Your task to perform on an android device: Open calendar and show me the first week of next month Image 0: 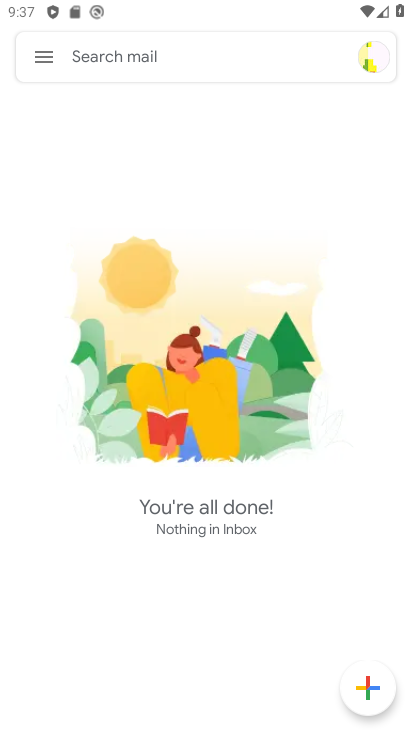
Step 0: press home button
Your task to perform on an android device: Open calendar and show me the first week of next month Image 1: 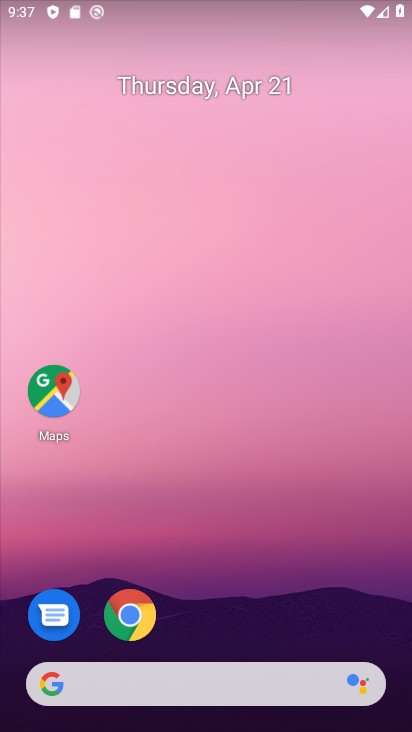
Step 1: drag from (207, 726) to (212, 223)
Your task to perform on an android device: Open calendar and show me the first week of next month Image 2: 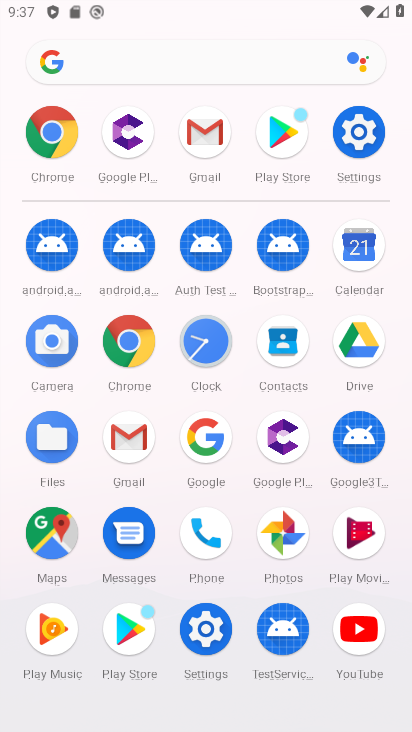
Step 2: click (355, 250)
Your task to perform on an android device: Open calendar and show me the first week of next month Image 3: 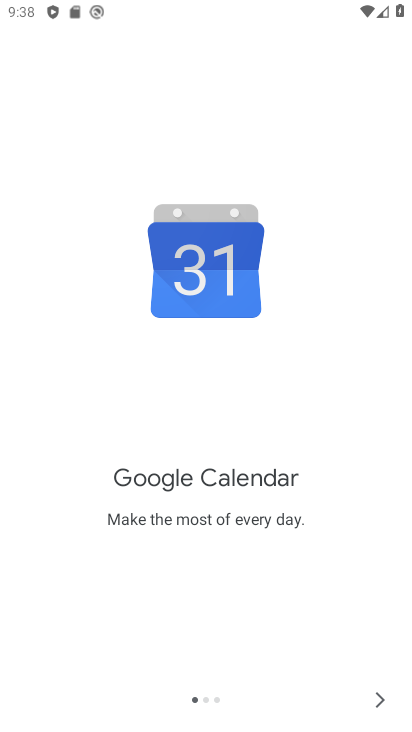
Step 3: click (370, 692)
Your task to perform on an android device: Open calendar and show me the first week of next month Image 4: 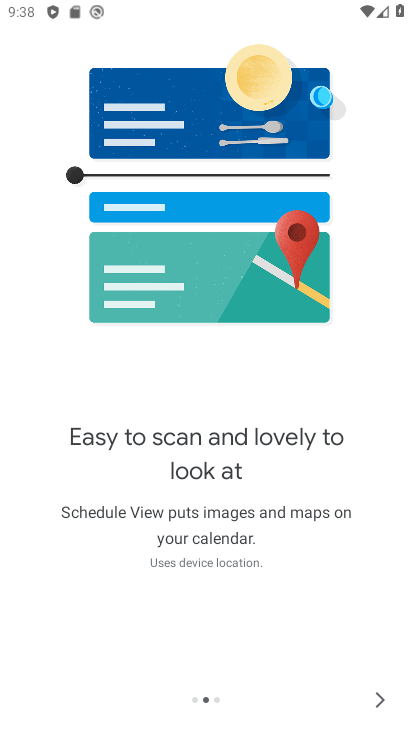
Step 4: click (376, 706)
Your task to perform on an android device: Open calendar and show me the first week of next month Image 5: 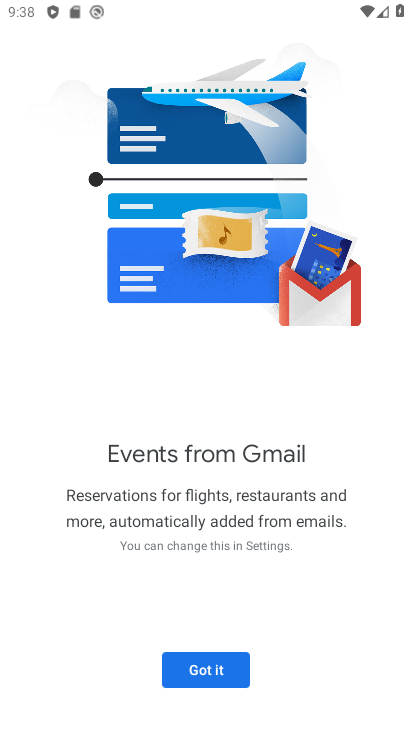
Step 5: click (231, 671)
Your task to perform on an android device: Open calendar and show me the first week of next month Image 6: 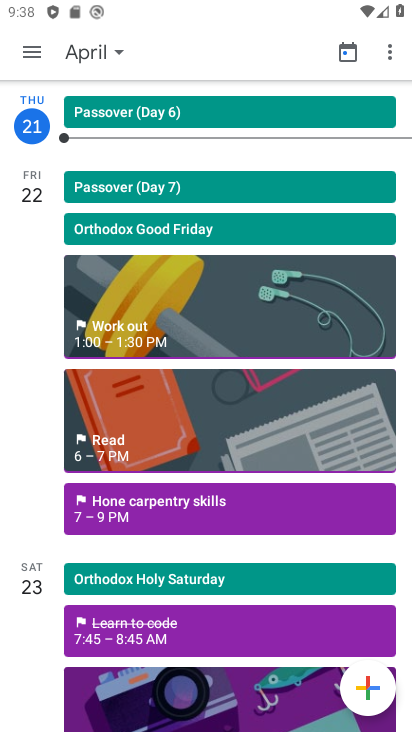
Step 6: click (85, 55)
Your task to perform on an android device: Open calendar and show me the first week of next month Image 7: 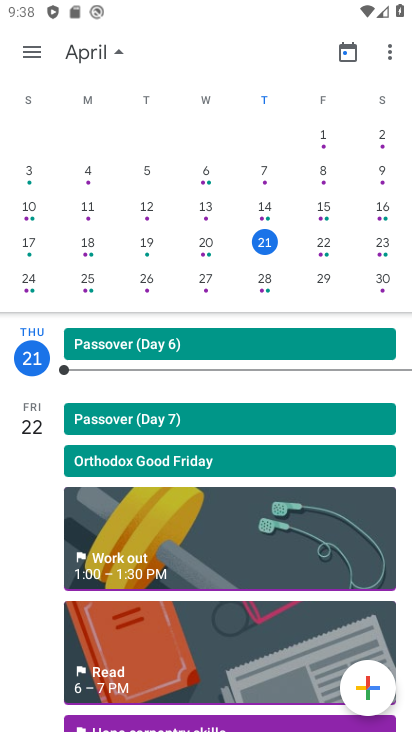
Step 7: drag from (357, 212) to (8, 46)
Your task to perform on an android device: Open calendar and show me the first week of next month Image 8: 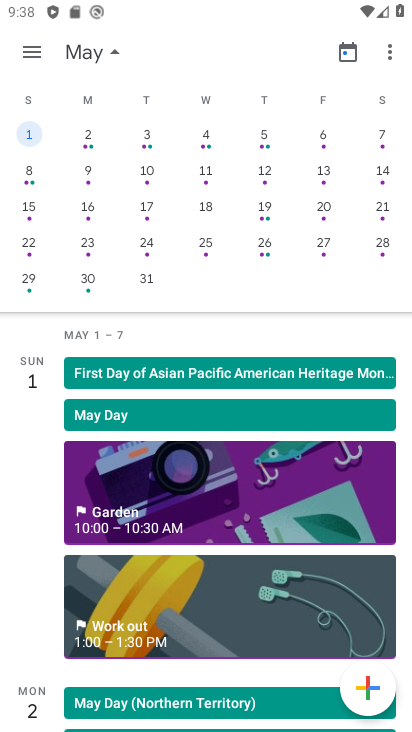
Step 8: click (84, 132)
Your task to perform on an android device: Open calendar and show me the first week of next month Image 9: 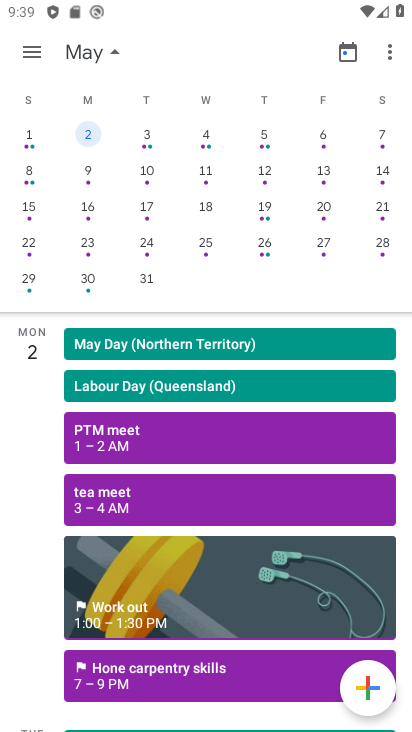
Step 9: task complete